Your task to perform on an android device: Go to Google maps Image 0: 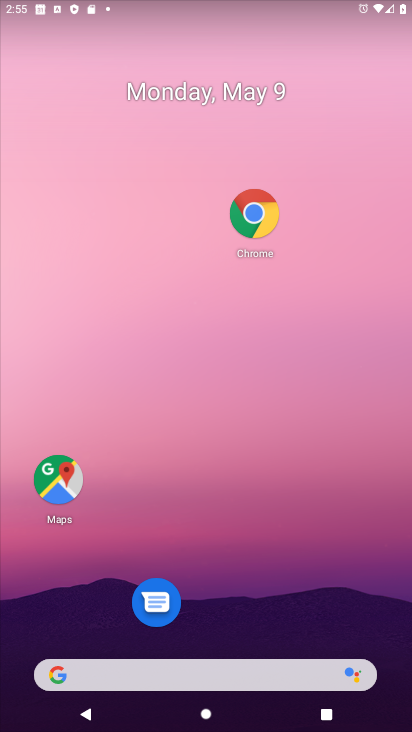
Step 0: click (56, 475)
Your task to perform on an android device: Go to Google maps Image 1: 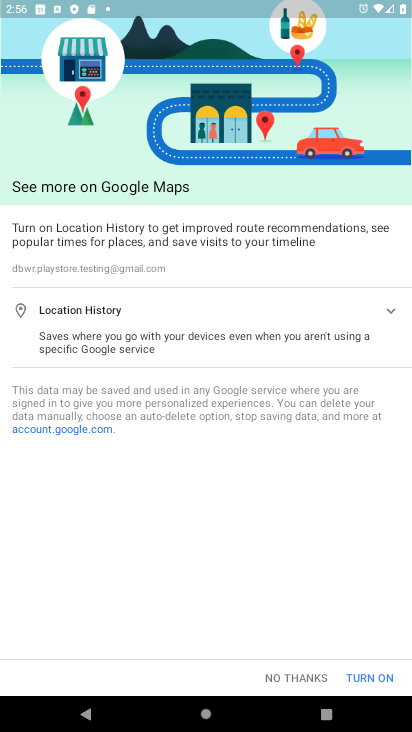
Step 1: click (361, 685)
Your task to perform on an android device: Go to Google maps Image 2: 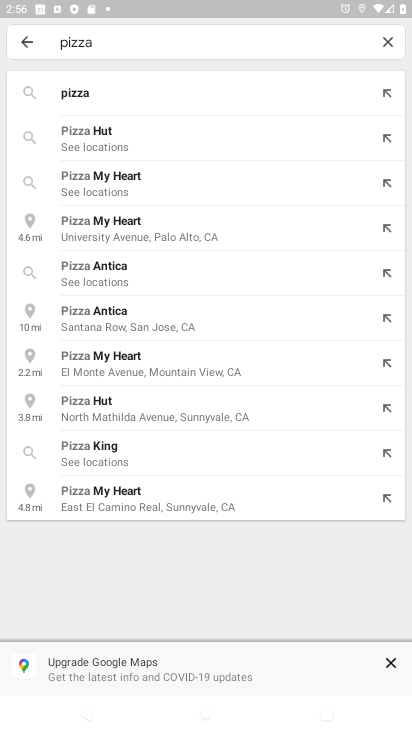
Step 2: click (396, 667)
Your task to perform on an android device: Go to Google maps Image 3: 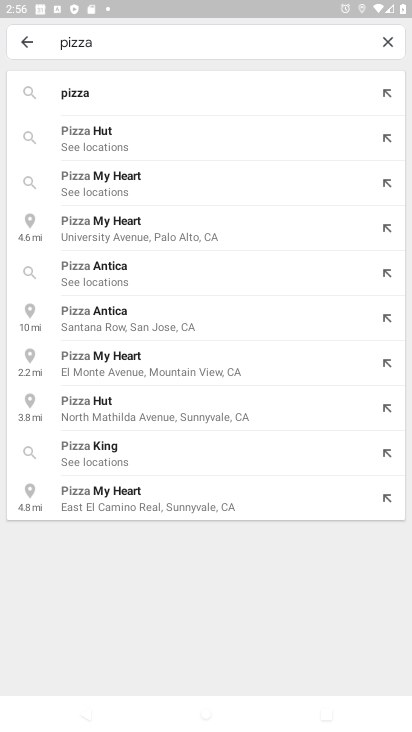
Step 3: click (387, 47)
Your task to perform on an android device: Go to Google maps Image 4: 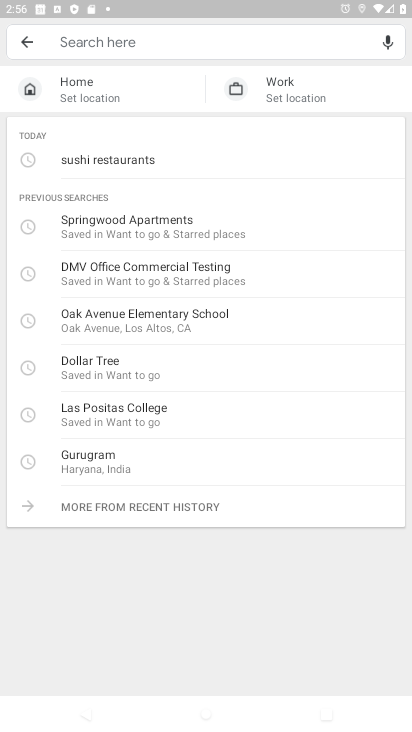
Step 4: task complete